Your task to perform on an android device: toggle airplane mode Image 0: 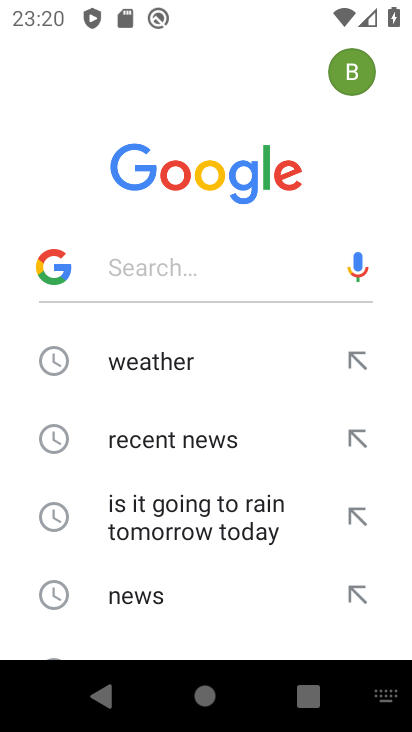
Step 0: press back button
Your task to perform on an android device: toggle airplane mode Image 1: 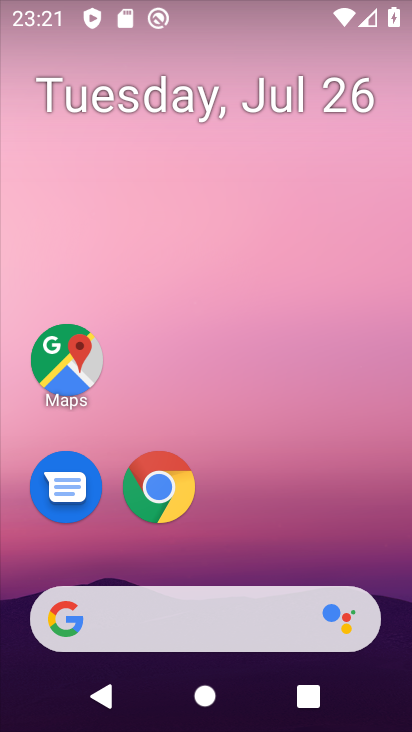
Step 1: drag from (323, 7) to (255, 586)
Your task to perform on an android device: toggle airplane mode Image 2: 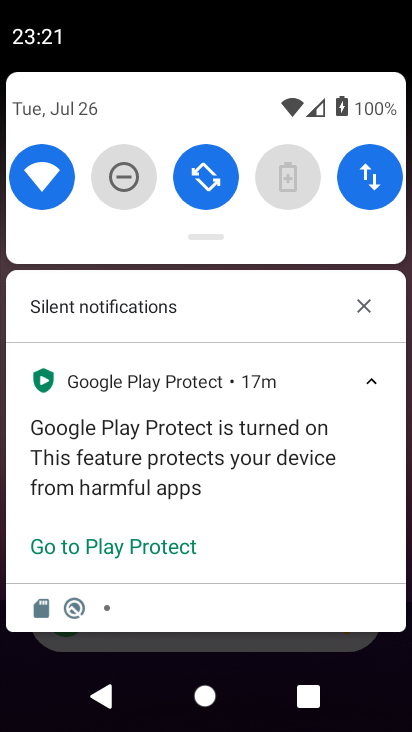
Step 2: drag from (202, 208) to (183, 665)
Your task to perform on an android device: toggle airplane mode Image 3: 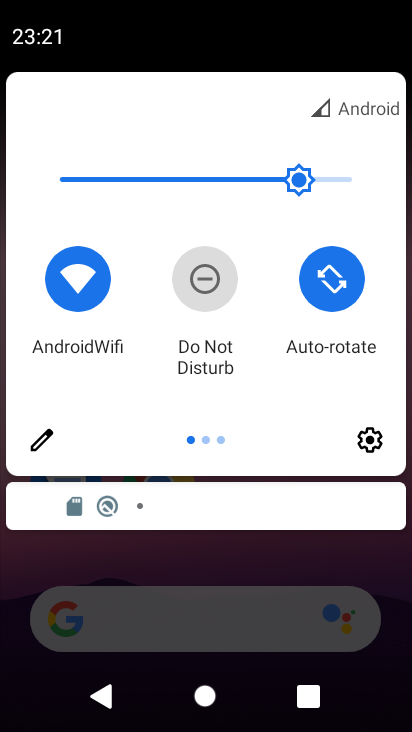
Step 3: drag from (336, 301) to (42, 350)
Your task to perform on an android device: toggle airplane mode Image 4: 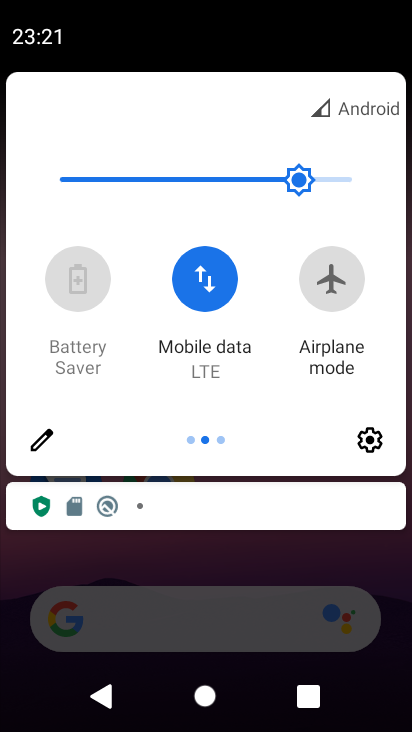
Step 4: click (331, 273)
Your task to perform on an android device: toggle airplane mode Image 5: 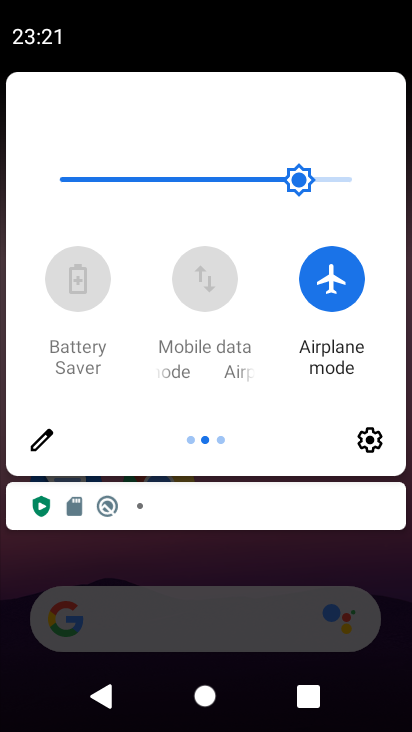
Step 5: task complete